Your task to perform on an android device: Open network settings Image 0: 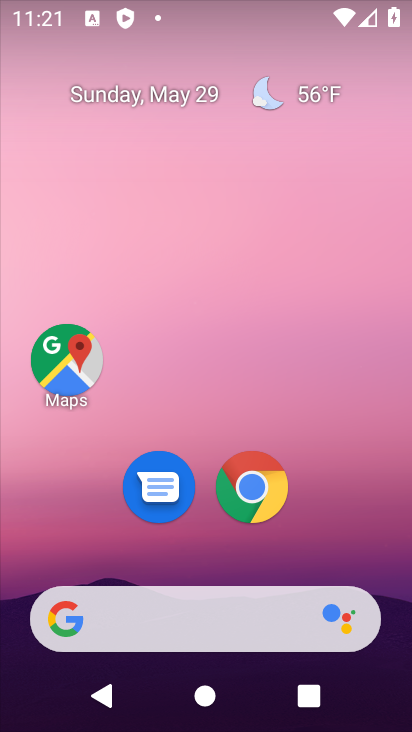
Step 0: drag from (177, 556) to (226, 78)
Your task to perform on an android device: Open network settings Image 1: 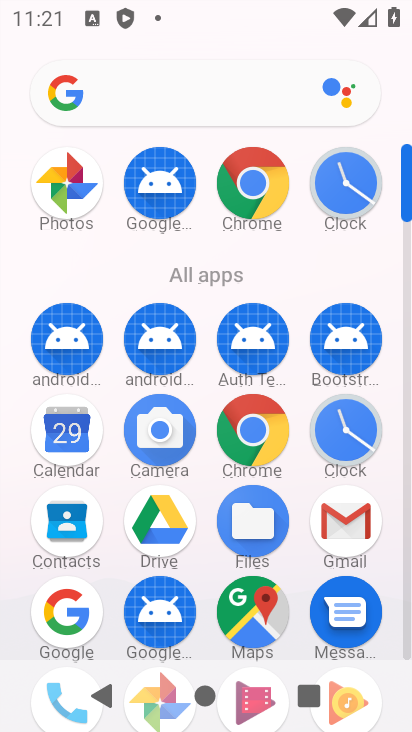
Step 1: drag from (173, 396) to (233, 125)
Your task to perform on an android device: Open network settings Image 2: 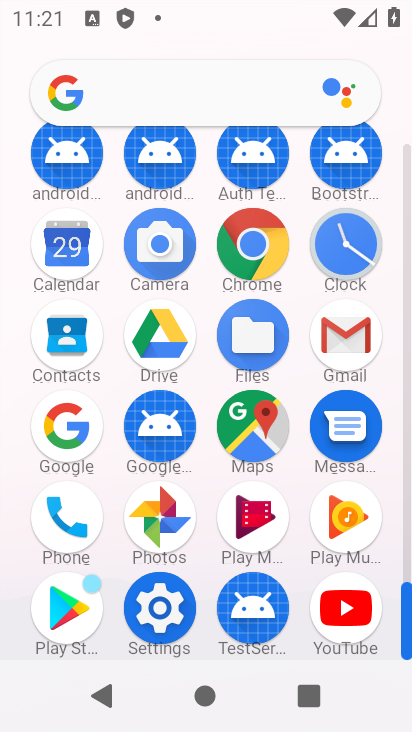
Step 2: click (158, 625)
Your task to perform on an android device: Open network settings Image 3: 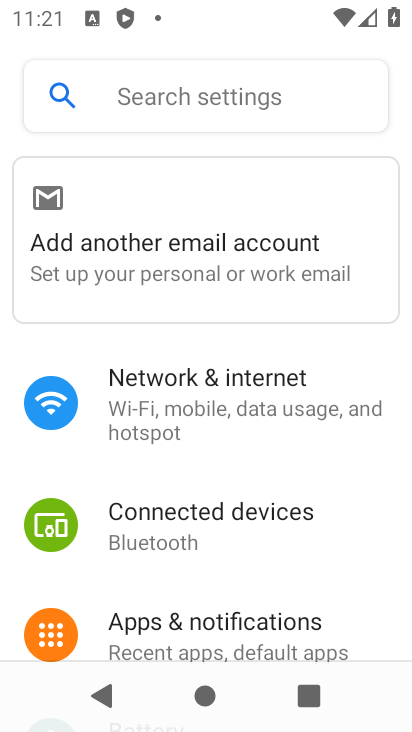
Step 3: click (227, 410)
Your task to perform on an android device: Open network settings Image 4: 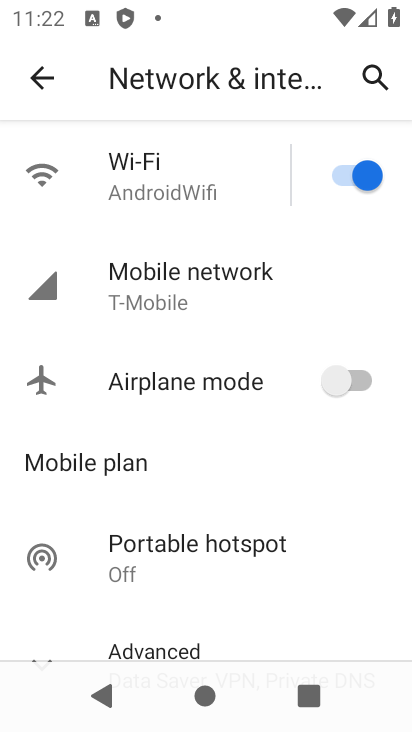
Step 4: click (195, 279)
Your task to perform on an android device: Open network settings Image 5: 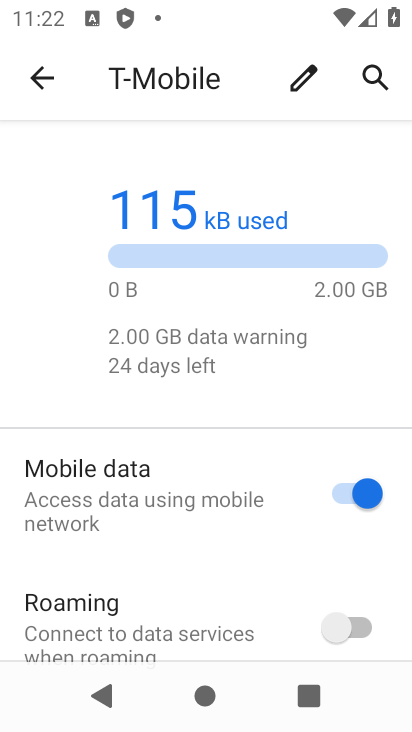
Step 5: task complete